Your task to perform on an android device: open app "Google Play Music" (install if not already installed) Image 0: 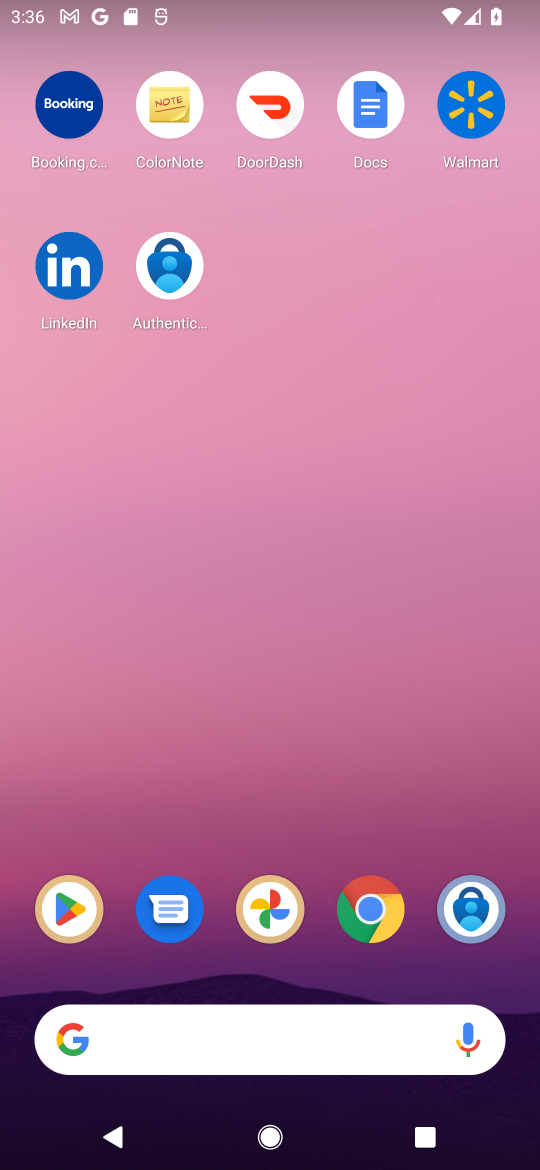
Step 0: drag from (200, 990) to (341, 313)
Your task to perform on an android device: open app "Google Play Music" (install if not already installed) Image 1: 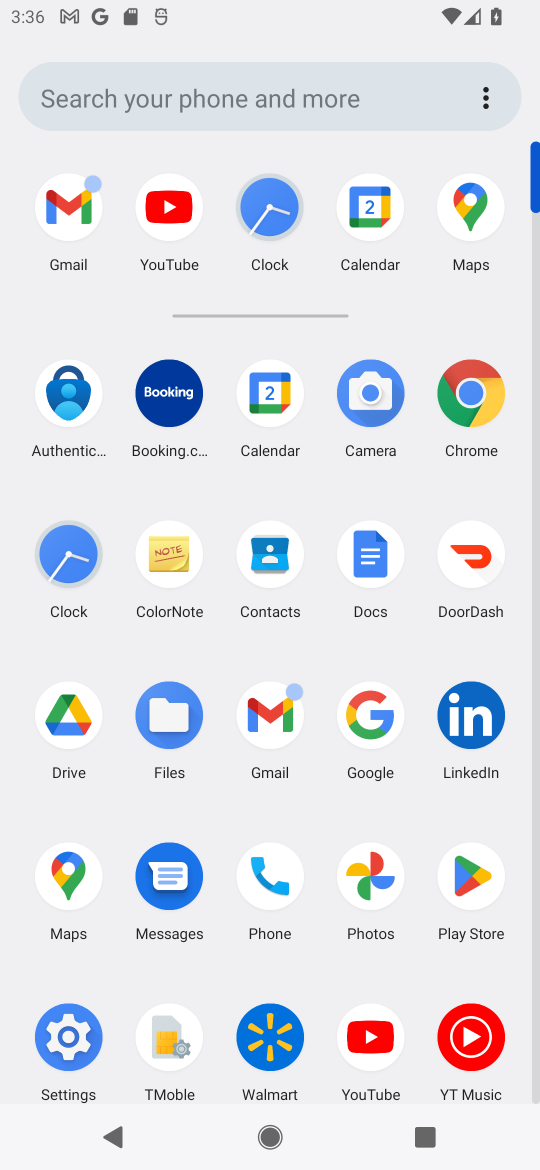
Step 1: click (469, 890)
Your task to perform on an android device: open app "Google Play Music" (install if not already installed) Image 2: 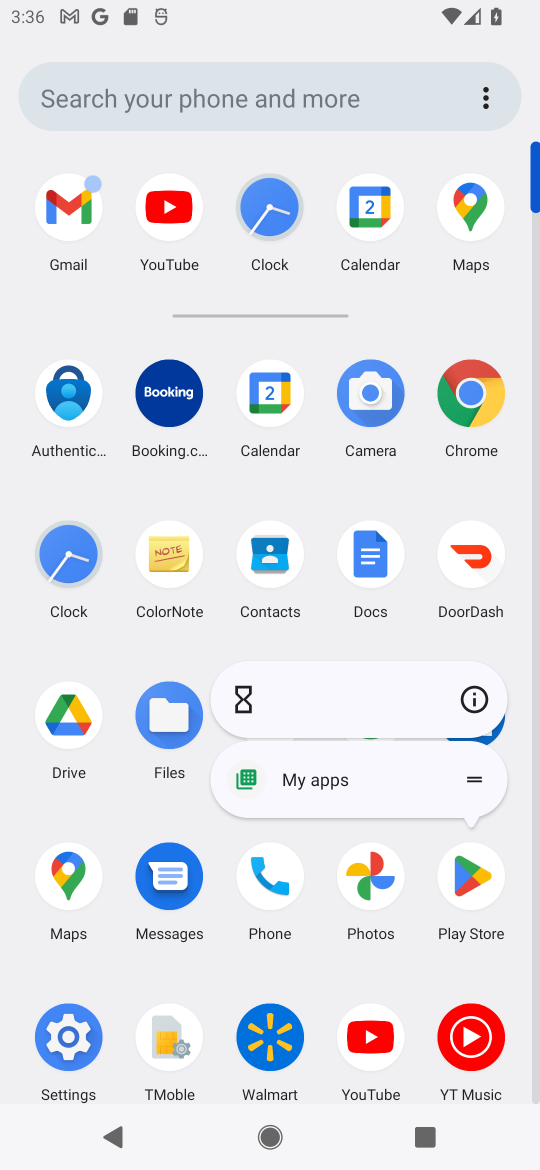
Step 2: click (475, 688)
Your task to perform on an android device: open app "Google Play Music" (install if not already installed) Image 3: 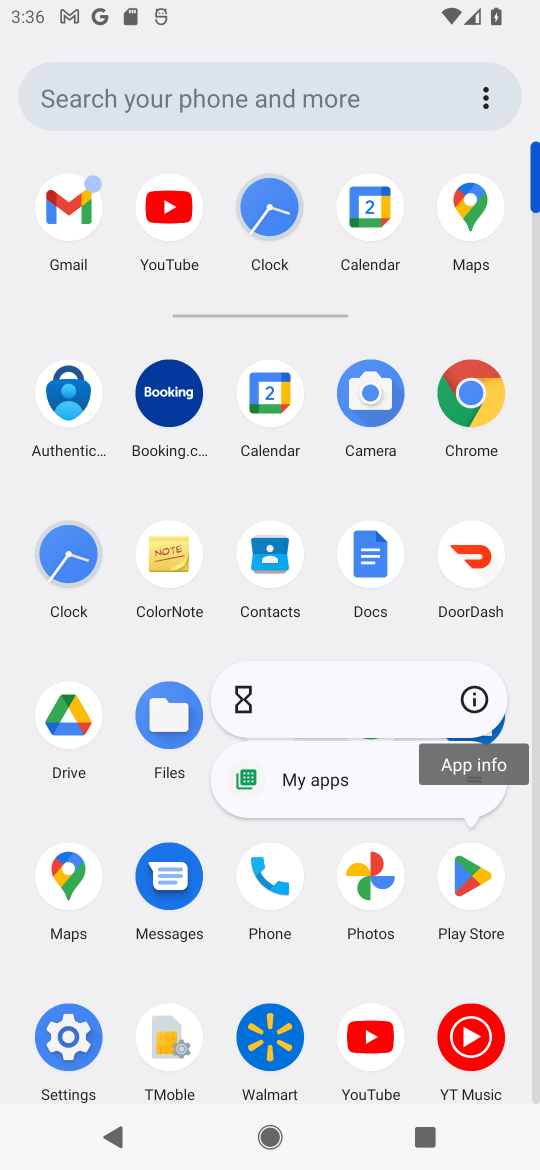
Step 3: click (476, 695)
Your task to perform on an android device: open app "Google Play Music" (install if not already installed) Image 4: 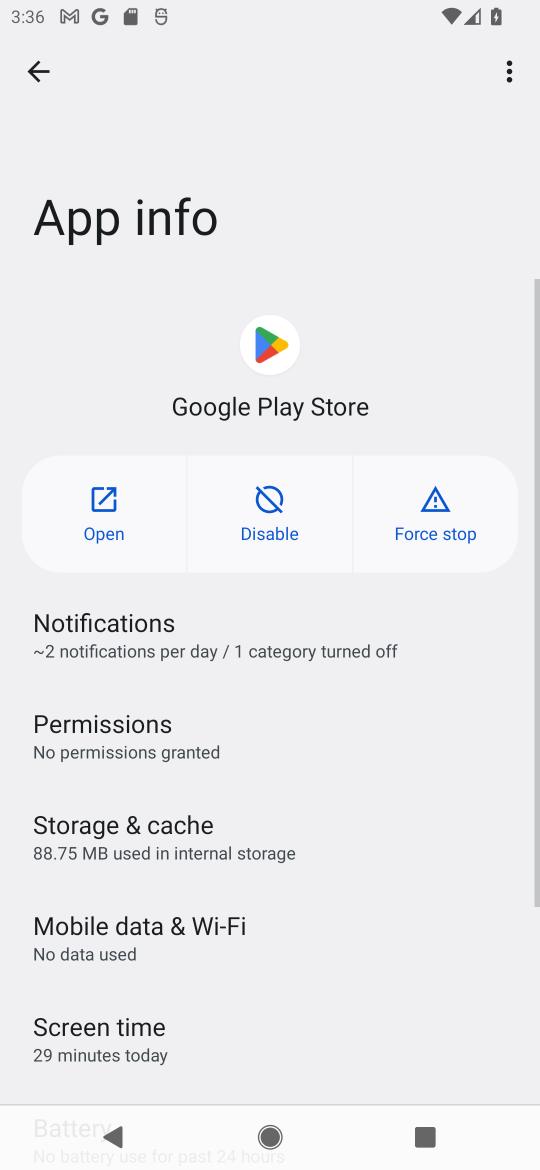
Step 4: click (80, 502)
Your task to perform on an android device: open app "Google Play Music" (install if not already installed) Image 5: 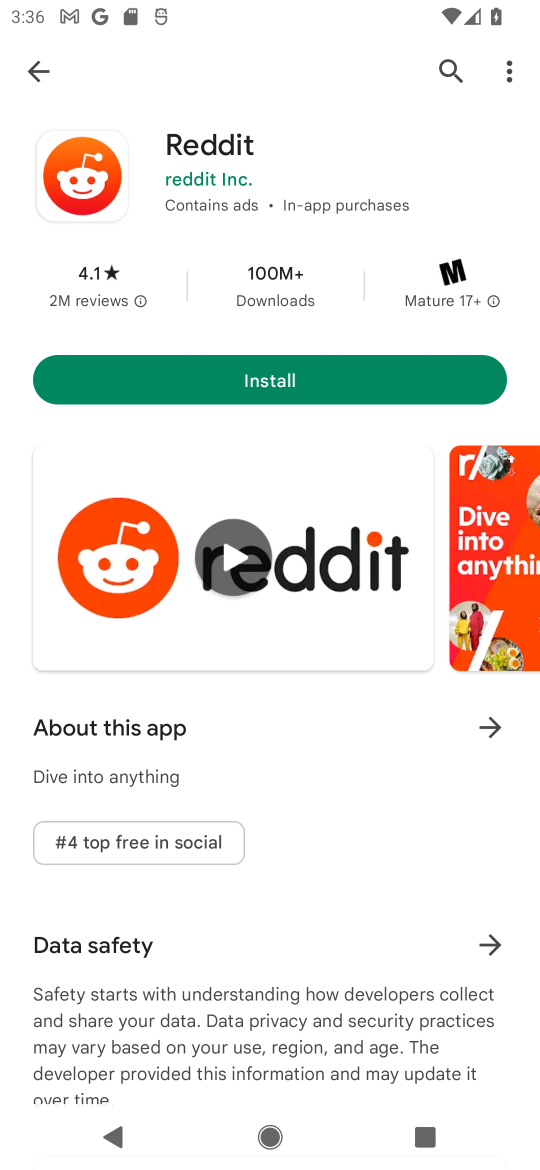
Step 5: click (439, 63)
Your task to perform on an android device: open app "Google Play Music" (install if not already installed) Image 6: 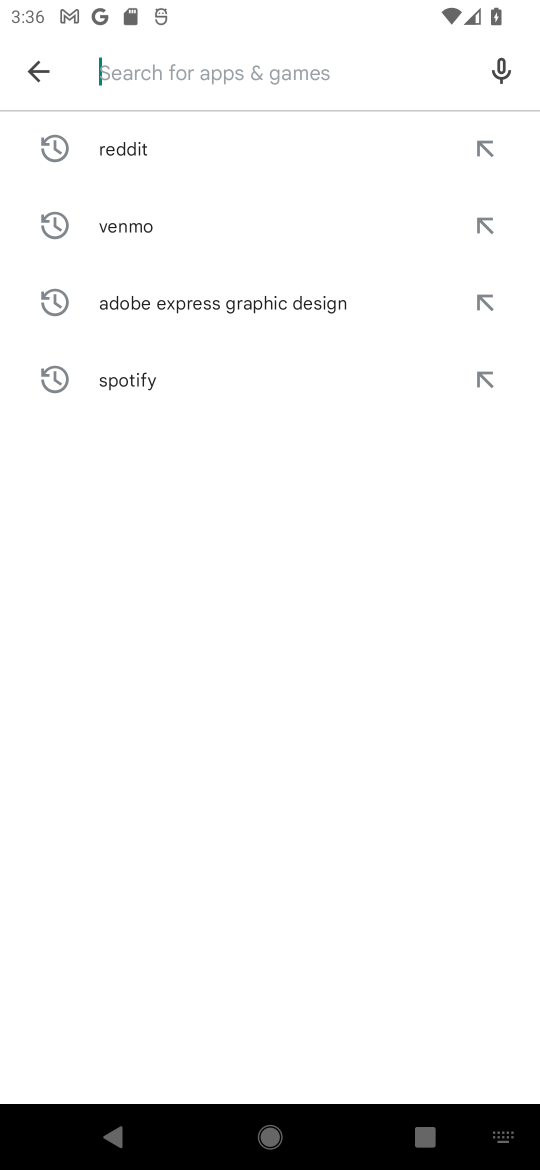
Step 6: type "Google Play Music"
Your task to perform on an android device: open app "Google Play Music" (install if not already installed) Image 7: 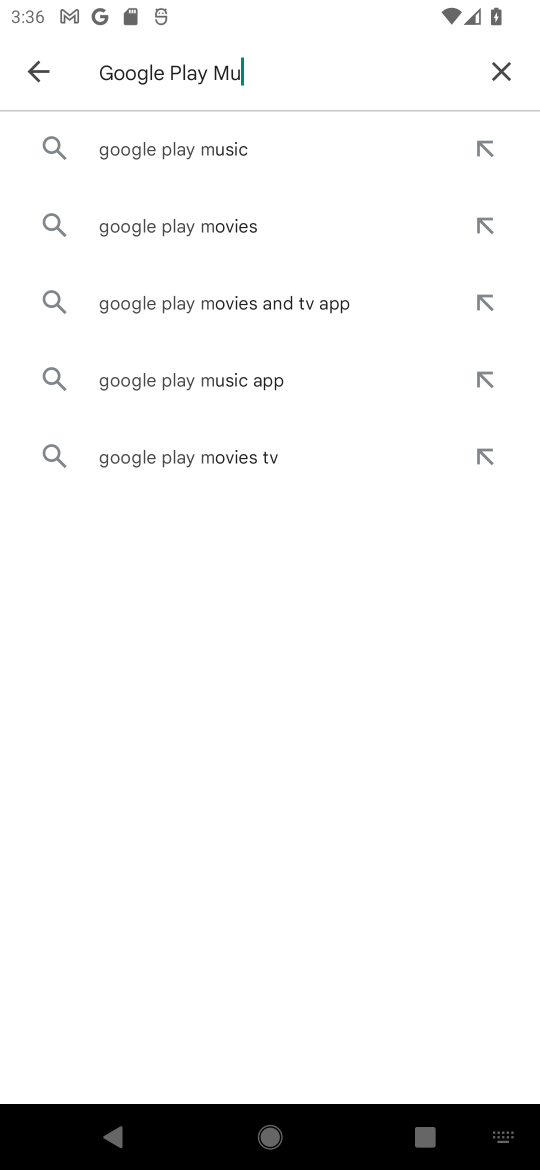
Step 7: type ""
Your task to perform on an android device: open app "Google Play Music" (install if not already installed) Image 8: 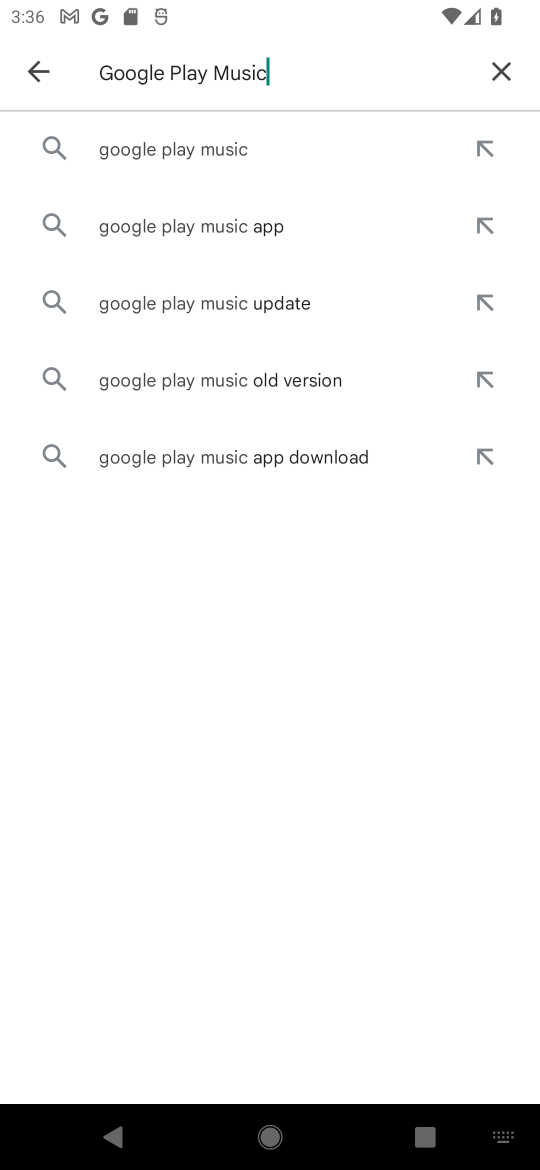
Step 8: click (110, 155)
Your task to perform on an android device: open app "Google Play Music" (install if not already installed) Image 9: 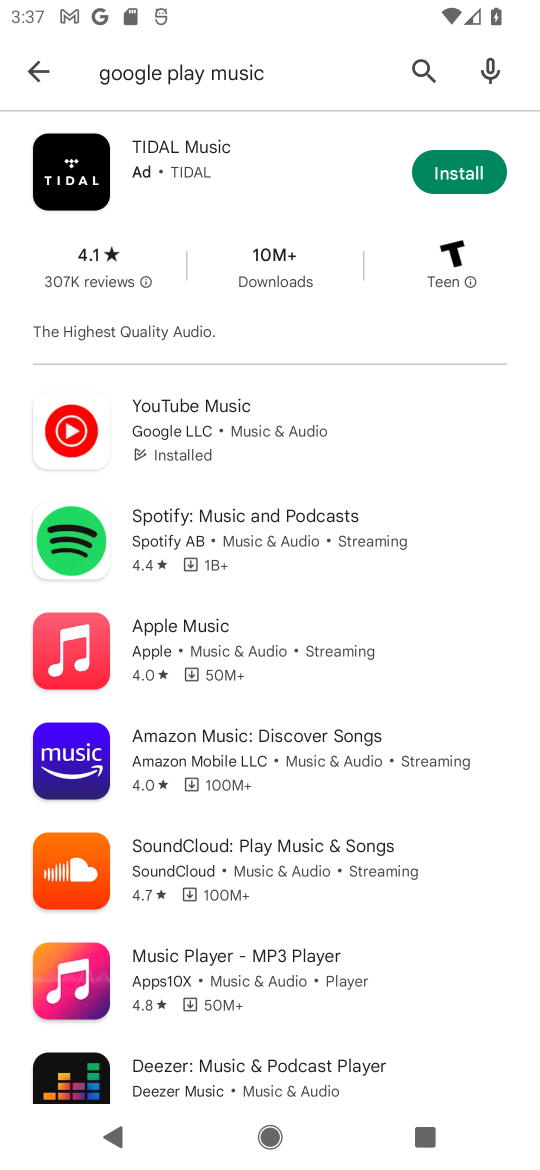
Step 9: task complete